Your task to perform on an android device: Search for seafood restaurants on Google Maps Image 0: 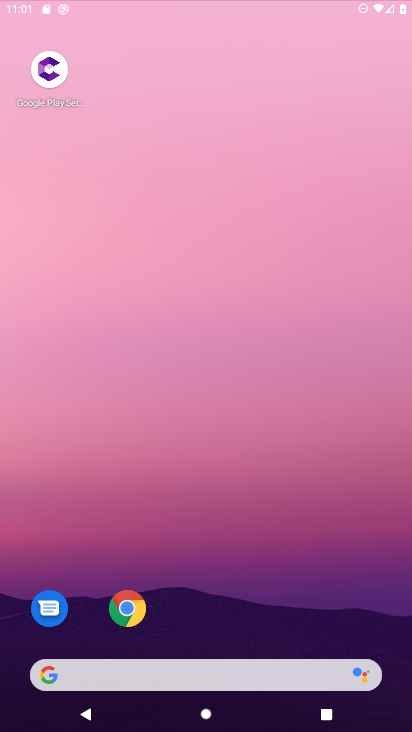
Step 0: click (258, 199)
Your task to perform on an android device: Search for seafood restaurants on Google Maps Image 1: 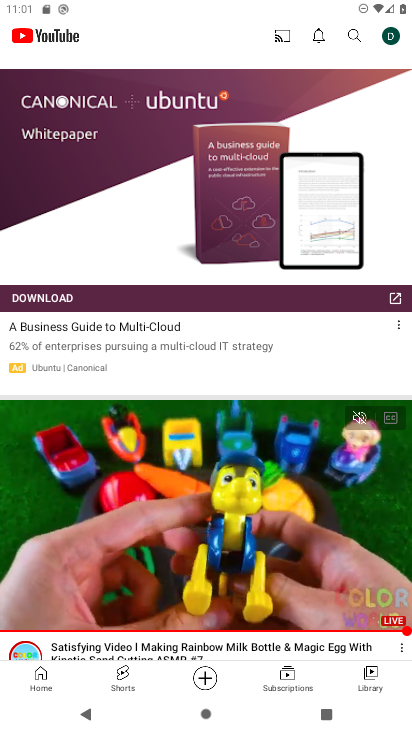
Step 1: press home button
Your task to perform on an android device: Search for seafood restaurants on Google Maps Image 2: 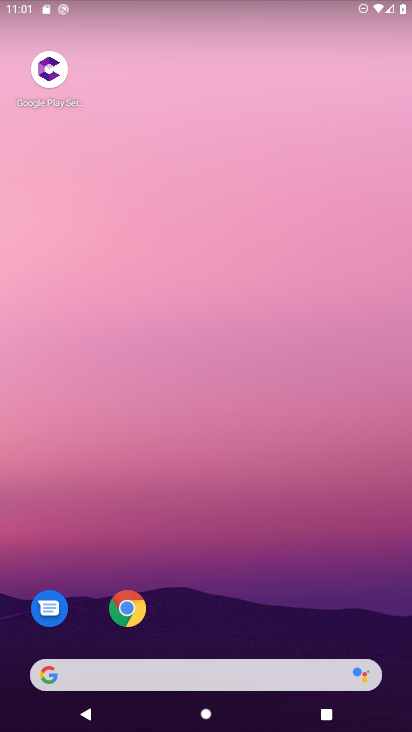
Step 2: drag from (366, 594) to (356, 96)
Your task to perform on an android device: Search for seafood restaurants on Google Maps Image 3: 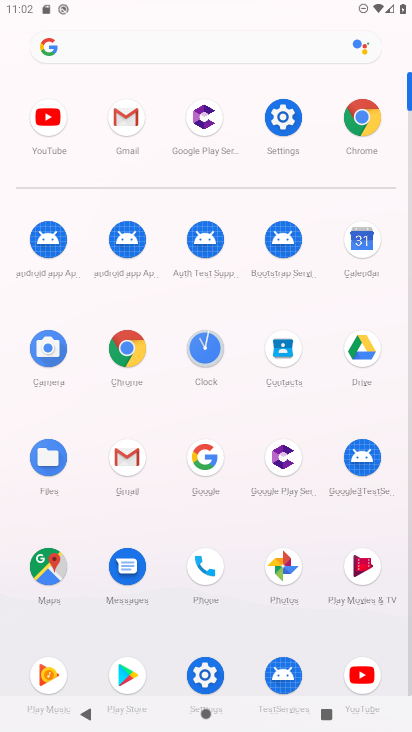
Step 3: click (45, 563)
Your task to perform on an android device: Search for seafood restaurants on Google Maps Image 4: 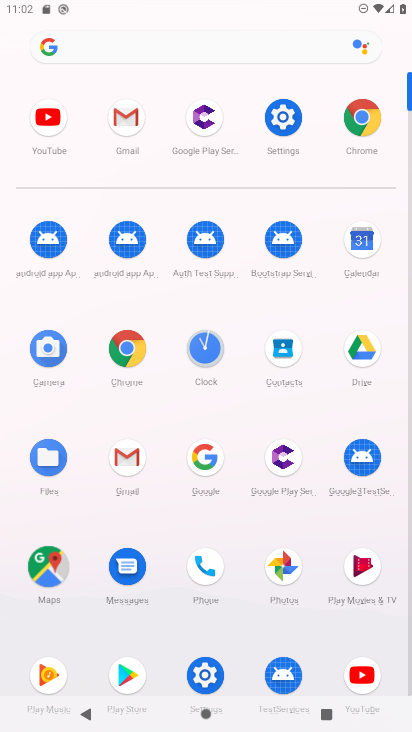
Step 4: click (41, 560)
Your task to perform on an android device: Search for seafood restaurants on Google Maps Image 5: 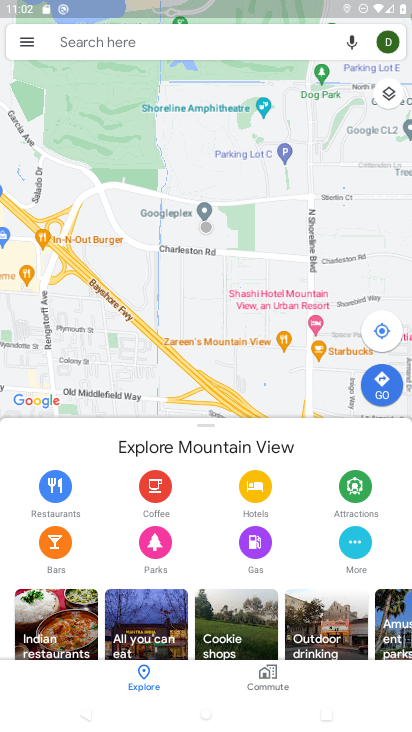
Step 5: click (93, 36)
Your task to perform on an android device: Search for seafood restaurants on Google Maps Image 6: 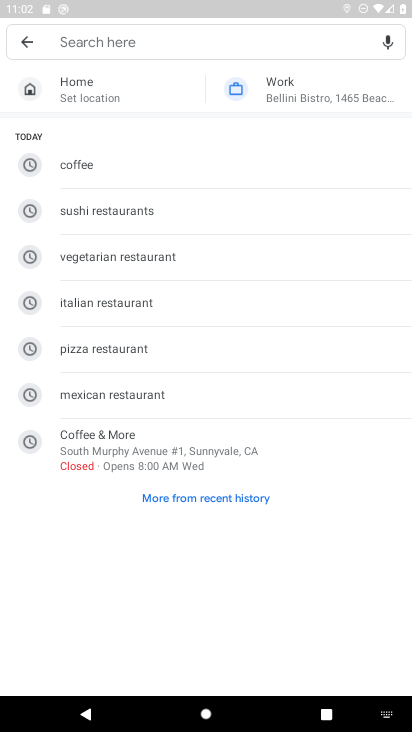
Step 6: type "seafood restaurants "
Your task to perform on an android device: Search for seafood restaurants on Google Maps Image 7: 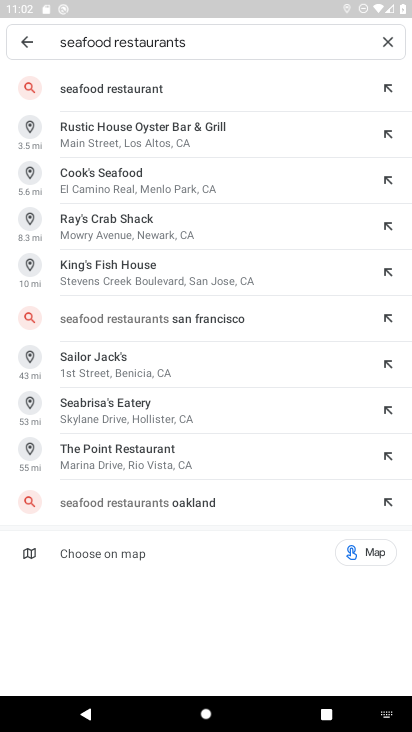
Step 7: click (202, 95)
Your task to perform on an android device: Search for seafood restaurants on Google Maps Image 8: 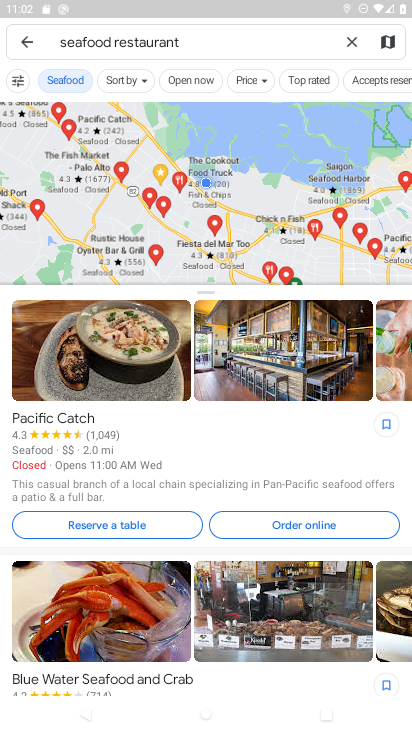
Step 8: task complete